Your task to perform on an android device: turn on improve location accuracy Image 0: 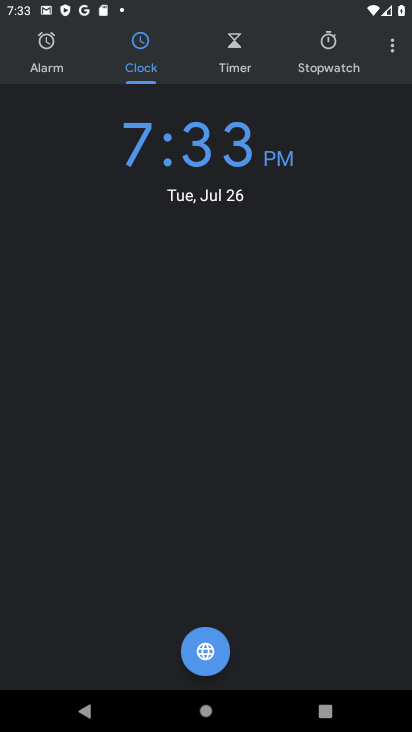
Step 0: press home button
Your task to perform on an android device: turn on improve location accuracy Image 1: 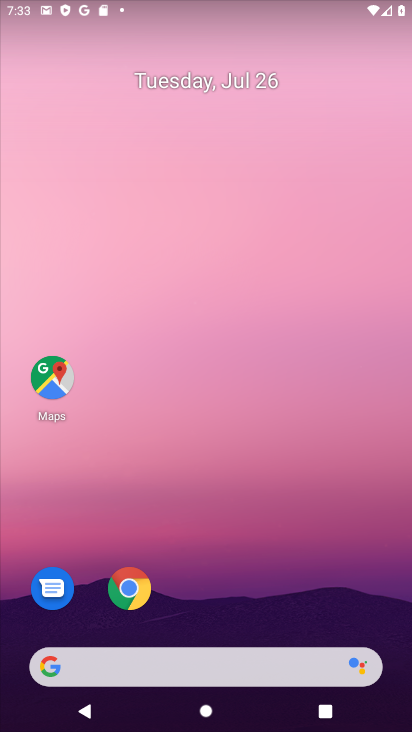
Step 1: drag from (216, 632) to (228, 35)
Your task to perform on an android device: turn on improve location accuracy Image 2: 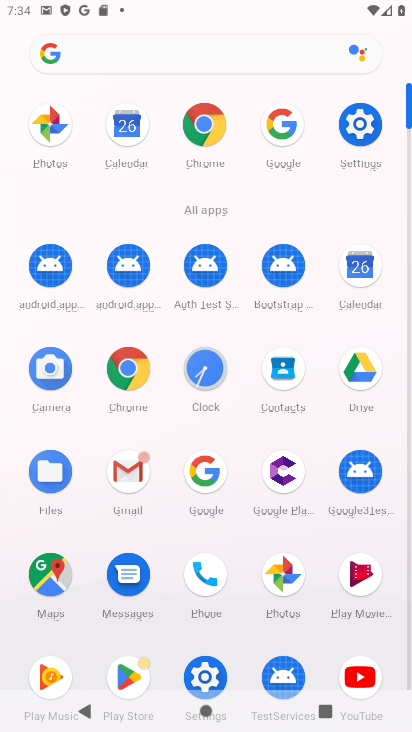
Step 2: click (360, 155)
Your task to perform on an android device: turn on improve location accuracy Image 3: 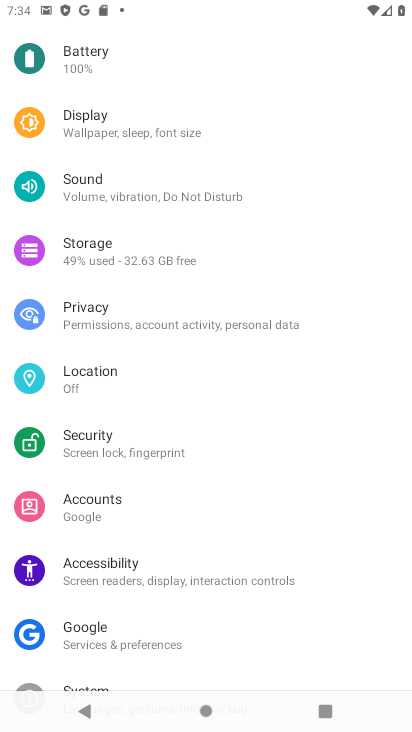
Step 3: click (83, 384)
Your task to perform on an android device: turn on improve location accuracy Image 4: 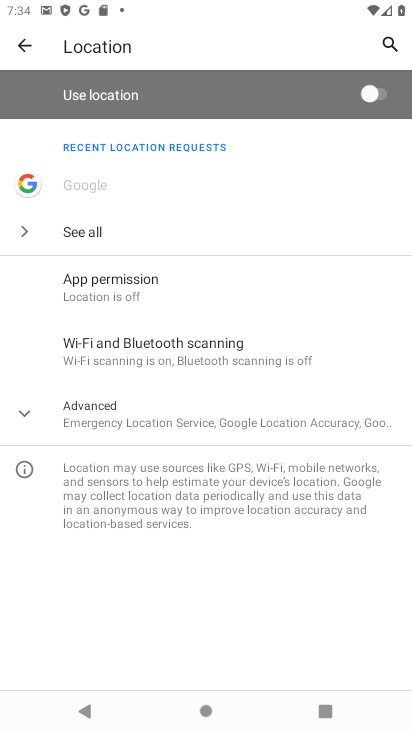
Step 4: click (125, 405)
Your task to perform on an android device: turn on improve location accuracy Image 5: 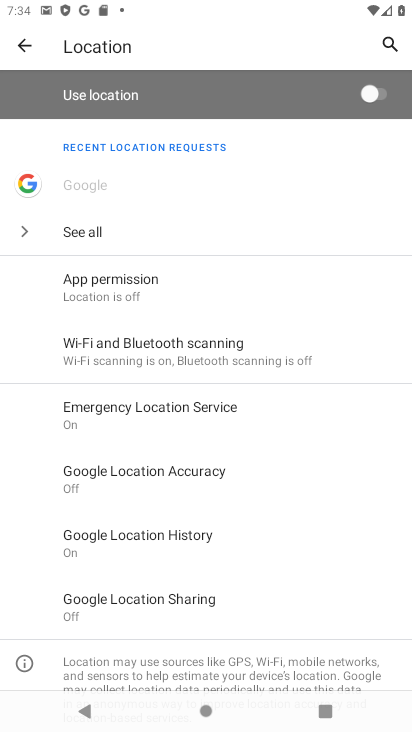
Step 5: click (119, 476)
Your task to perform on an android device: turn on improve location accuracy Image 6: 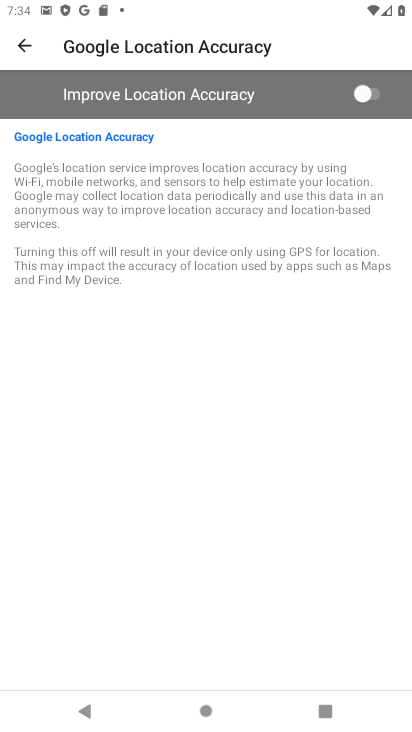
Step 6: click (310, 93)
Your task to perform on an android device: turn on improve location accuracy Image 7: 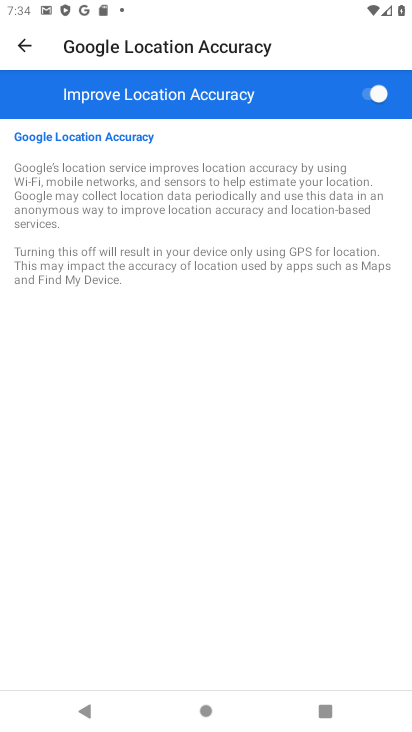
Step 7: task complete